Your task to perform on an android device: View the shopping cart on walmart.com. Search for usb-a to usb-b on walmart.com, select the first entry, and add it to the cart. Image 0: 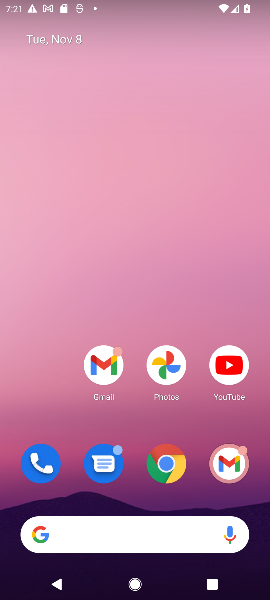
Step 0: click (181, 463)
Your task to perform on an android device: View the shopping cart on walmart.com. Search for usb-a to usb-b on walmart.com, select the first entry, and add it to the cart. Image 1: 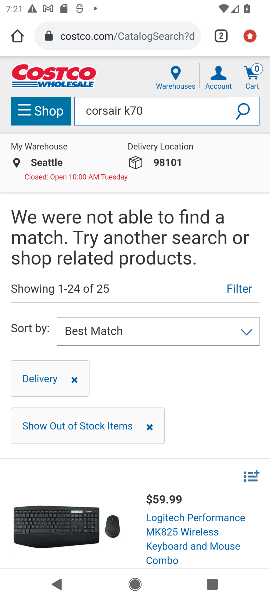
Step 1: click (84, 36)
Your task to perform on an android device: View the shopping cart on walmart.com. Search for usb-a to usb-b on walmart.com, select the first entry, and add it to the cart. Image 2: 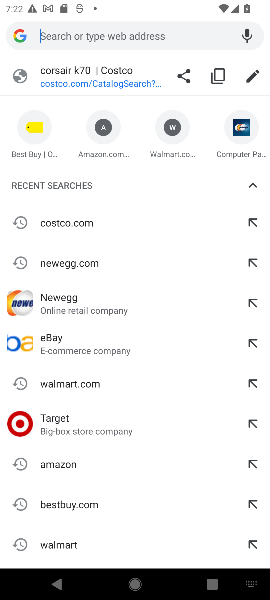
Step 2: click (66, 392)
Your task to perform on an android device: View the shopping cart on walmart.com. Search for usb-a to usb-b on walmart.com, select the first entry, and add it to the cart. Image 3: 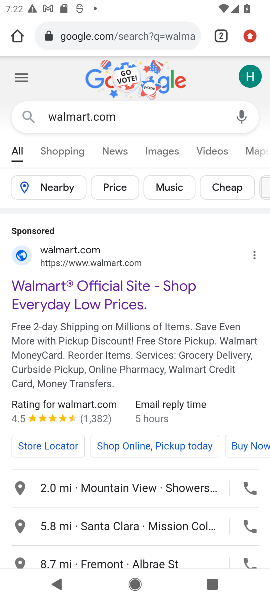
Step 3: click (76, 386)
Your task to perform on an android device: View the shopping cart on walmart.com. Search for usb-a to usb-b on walmart.com, select the first entry, and add it to the cart. Image 4: 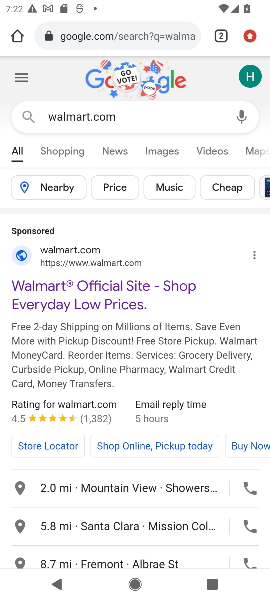
Step 4: click (80, 283)
Your task to perform on an android device: View the shopping cart on walmart.com. Search for usb-a to usb-b on walmart.com, select the first entry, and add it to the cart. Image 5: 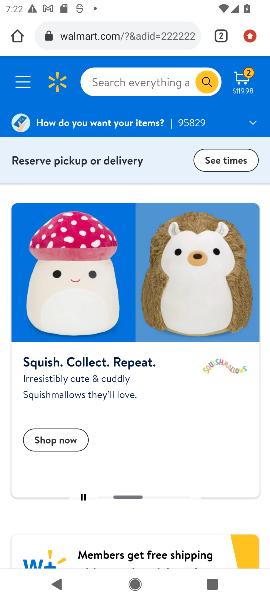
Step 5: click (245, 71)
Your task to perform on an android device: View the shopping cart on walmart.com. Search for usb-a to usb-b on walmart.com, select the first entry, and add it to the cart. Image 6: 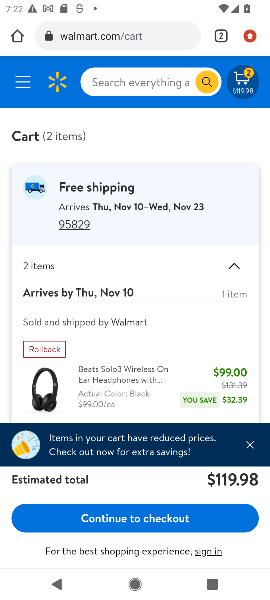
Step 6: click (160, 77)
Your task to perform on an android device: View the shopping cart on walmart.com. Search for usb-a to usb-b on walmart.com, select the first entry, and add it to the cart. Image 7: 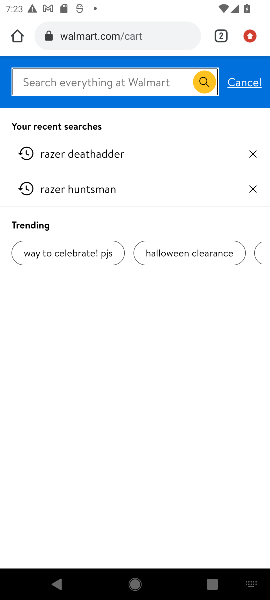
Step 7: type "usb-a to usb-b"
Your task to perform on an android device: View the shopping cart on walmart.com. Search for usb-a to usb-b on walmart.com, select the first entry, and add it to the cart. Image 8: 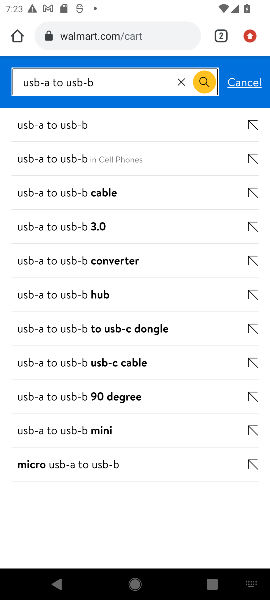
Step 8: click (206, 90)
Your task to perform on an android device: View the shopping cart on walmart.com. Search for usb-a to usb-b on walmart.com, select the first entry, and add it to the cart. Image 9: 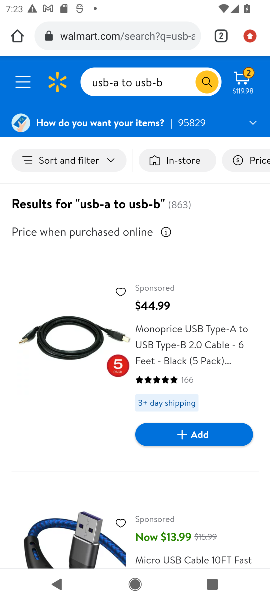
Step 9: click (218, 430)
Your task to perform on an android device: View the shopping cart on walmart.com. Search for usb-a to usb-b on walmart.com, select the first entry, and add it to the cart. Image 10: 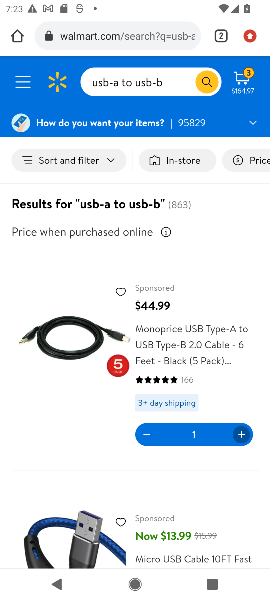
Step 10: task complete